Your task to perform on an android device: Open Android settings Image 0: 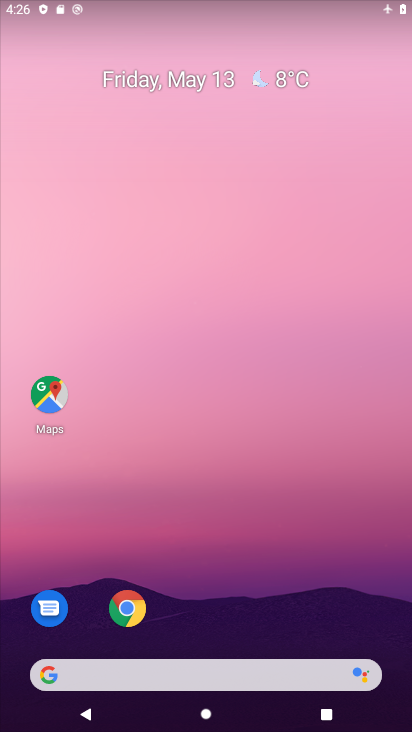
Step 0: click (236, 603)
Your task to perform on an android device: Open Android settings Image 1: 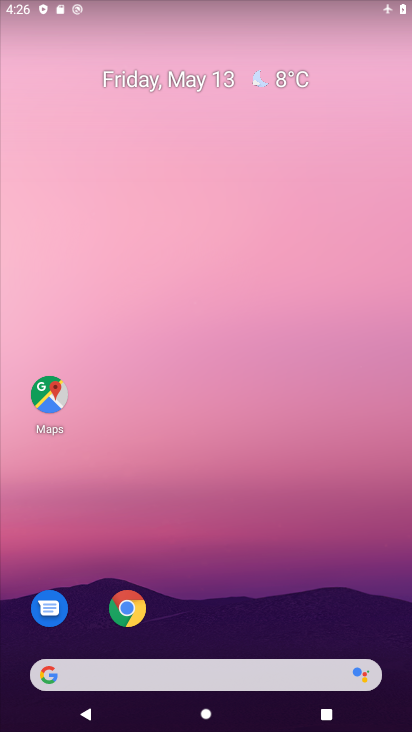
Step 1: drag from (238, 599) to (187, 97)
Your task to perform on an android device: Open Android settings Image 2: 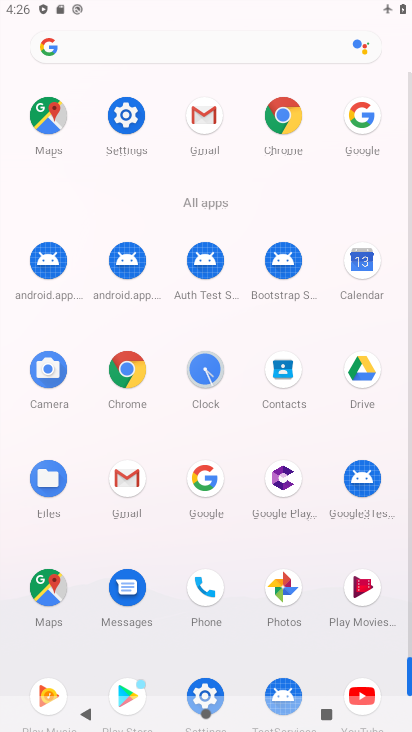
Step 2: click (124, 117)
Your task to perform on an android device: Open Android settings Image 3: 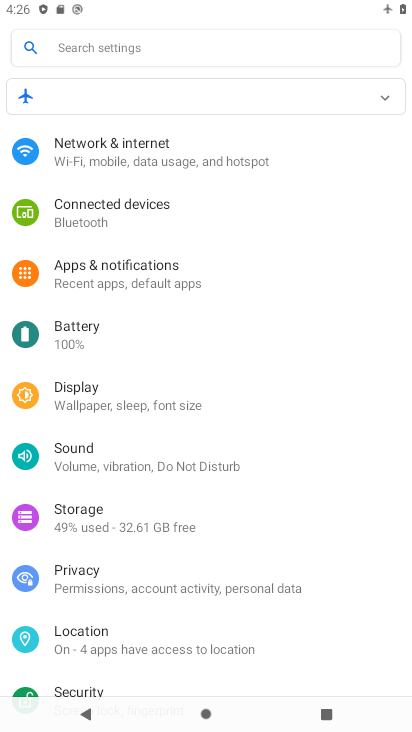
Step 3: task complete